Your task to perform on an android device: make emails show in primary in the gmail app Image 0: 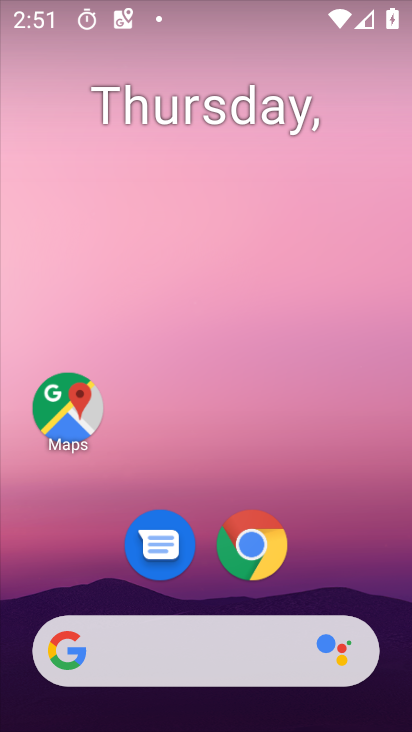
Step 0: drag from (219, 723) to (207, 51)
Your task to perform on an android device: make emails show in primary in the gmail app Image 1: 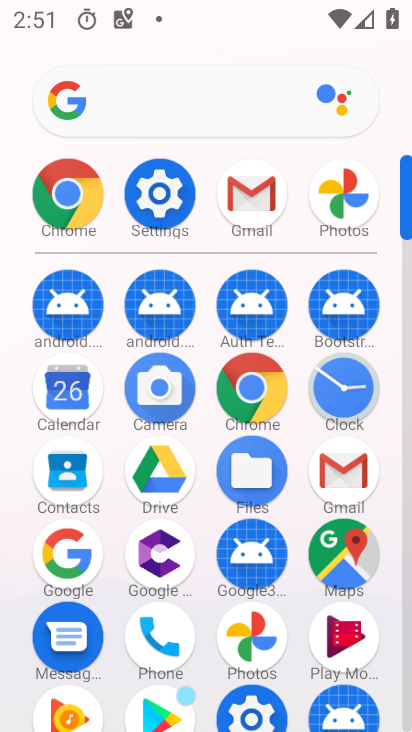
Step 1: click (349, 465)
Your task to perform on an android device: make emails show in primary in the gmail app Image 2: 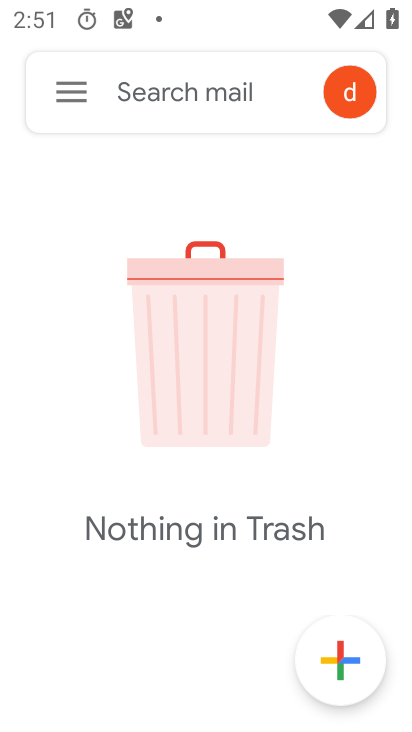
Step 2: click (63, 93)
Your task to perform on an android device: make emails show in primary in the gmail app Image 3: 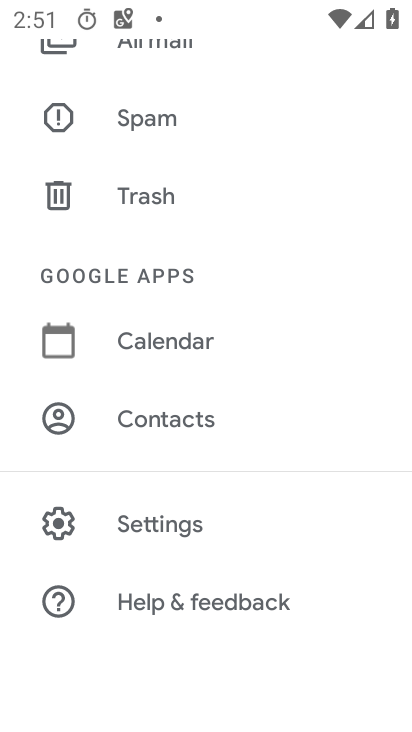
Step 3: click (171, 519)
Your task to perform on an android device: make emails show in primary in the gmail app Image 4: 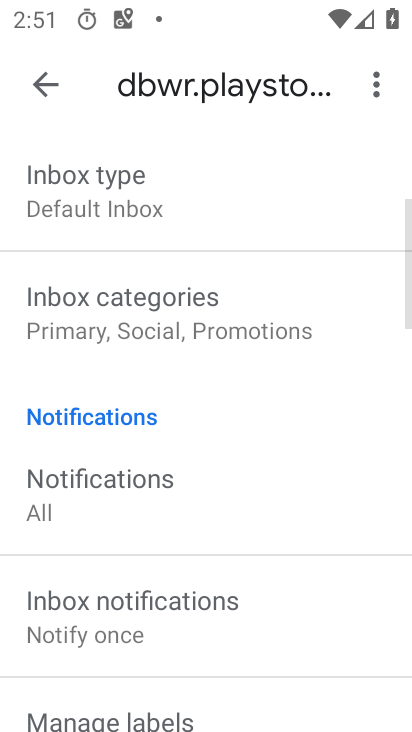
Step 4: drag from (158, 189) to (160, 336)
Your task to perform on an android device: make emails show in primary in the gmail app Image 5: 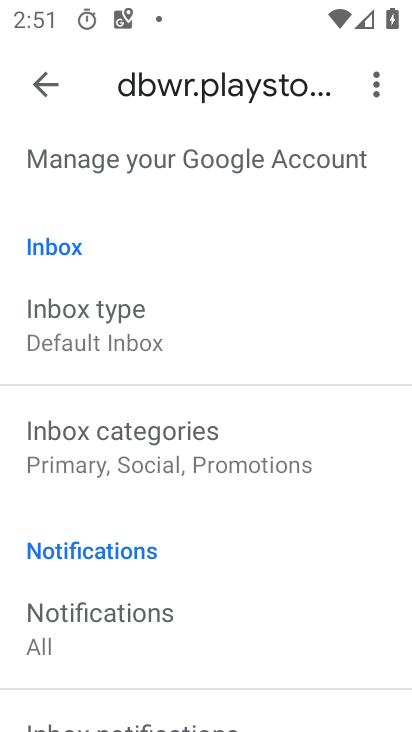
Step 5: click (132, 465)
Your task to perform on an android device: make emails show in primary in the gmail app Image 6: 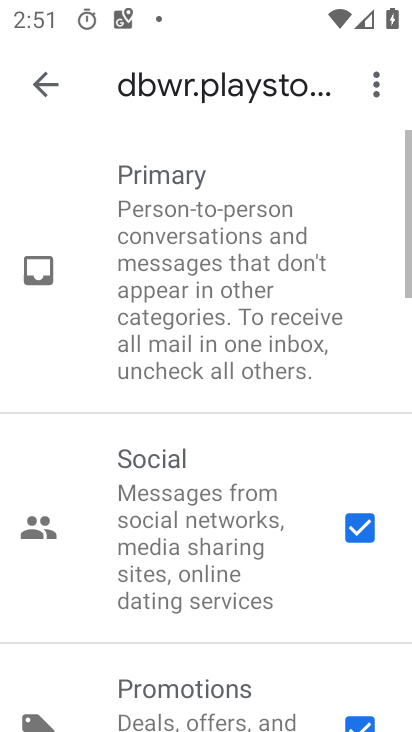
Step 6: click (370, 518)
Your task to perform on an android device: make emails show in primary in the gmail app Image 7: 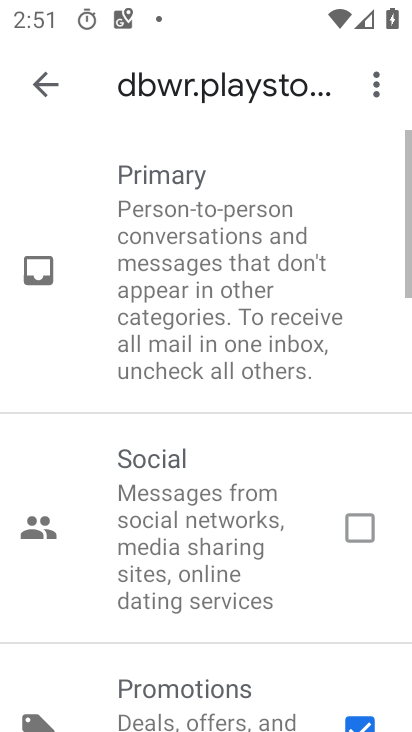
Step 7: drag from (236, 630) to (251, 332)
Your task to perform on an android device: make emails show in primary in the gmail app Image 8: 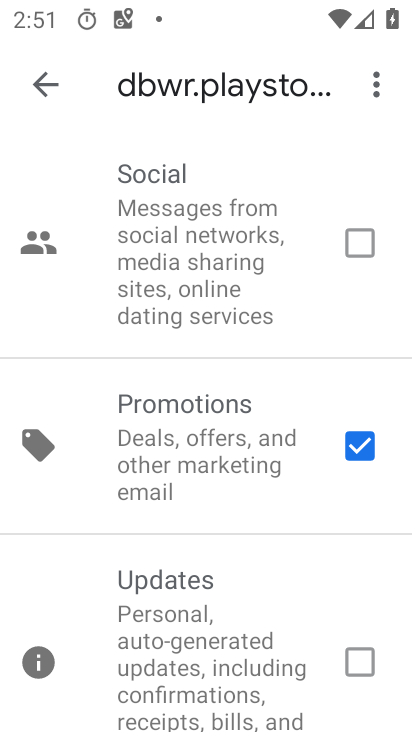
Step 8: click (355, 442)
Your task to perform on an android device: make emails show in primary in the gmail app Image 9: 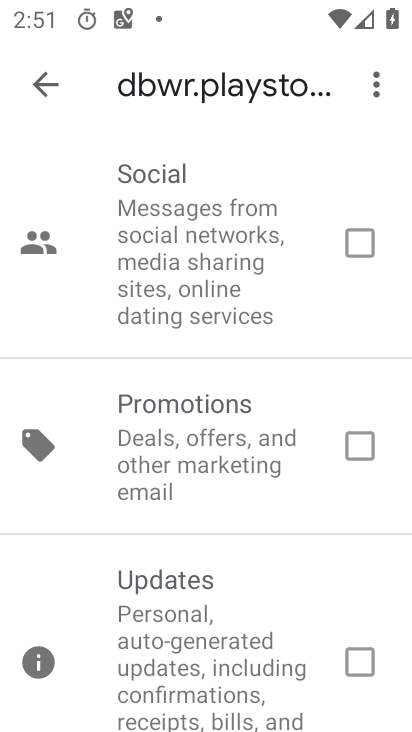
Step 9: click (47, 87)
Your task to perform on an android device: make emails show in primary in the gmail app Image 10: 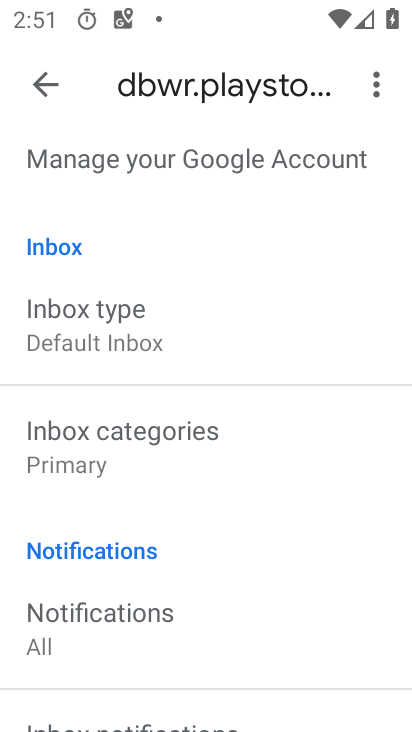
Step 10: task complete